Your task to perform on an android device: turn off location history Image 0: 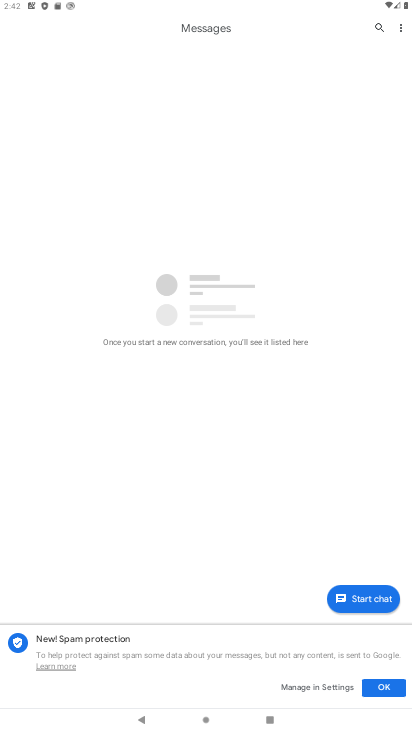
Step 0: press home button
Your task to perform on an android device: turn off location history Image 1: 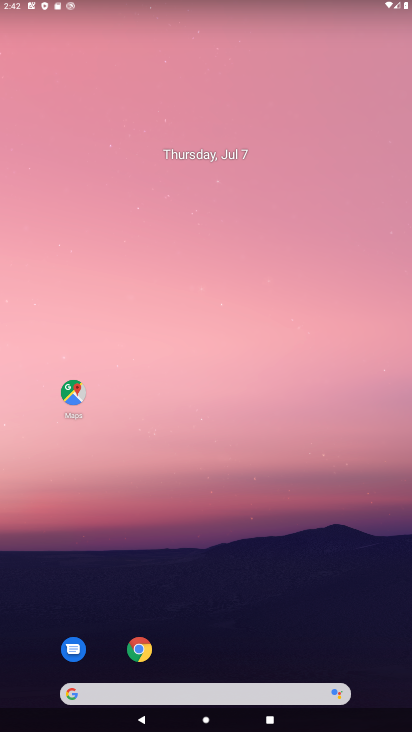
Step 1: drag from (265, 688) to (332, 23)
Your task to perform on an android device: turn off location history Image 2: 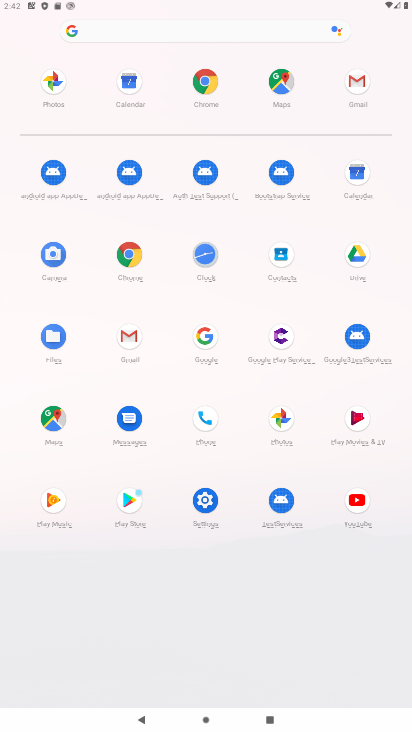
Step 2: click (210, 497)
Your task to perform on an android device: turn off location history Image 3: 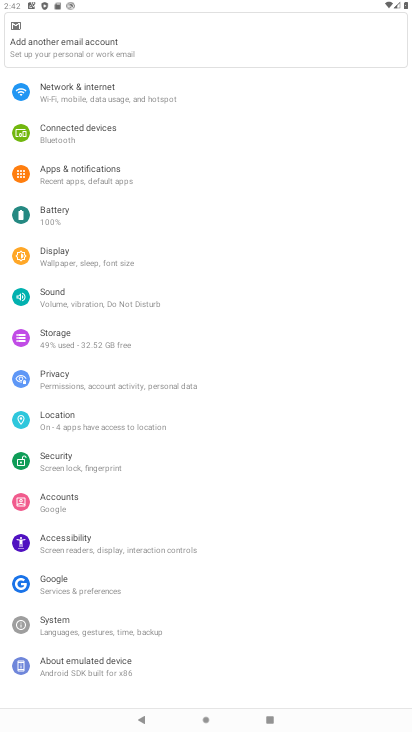
Step 3: click (66, 412)
Your task to perform on an android device: turn off location history Image 4: 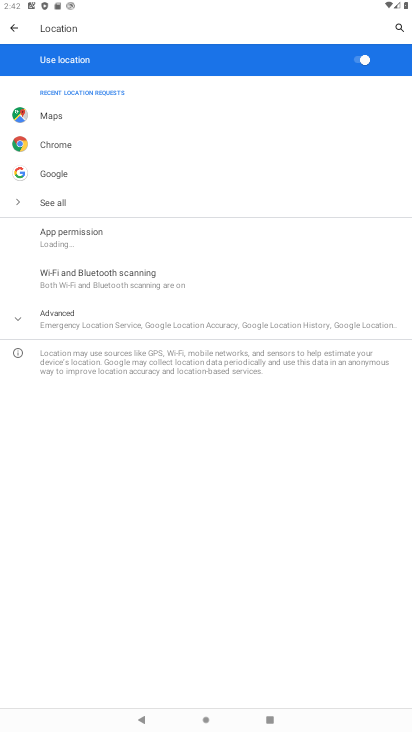
Step 4: click (68, 321)
Your task to perform on an android device: turn off location history Image 5: 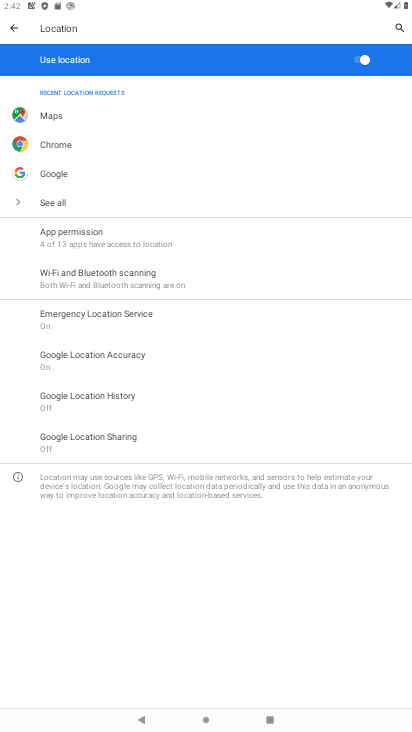
Step 5: click (103, 400)
Your task to perform on an android device: turn off location history Image 6: 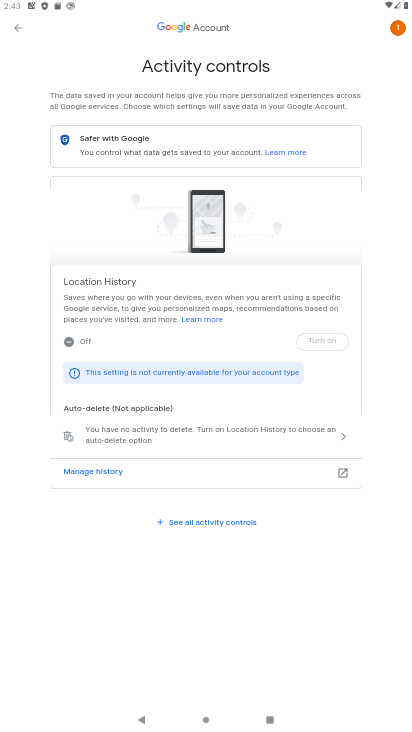
Step 6: task complete